Your task to perform on an android device: toggle wifi Image 0: 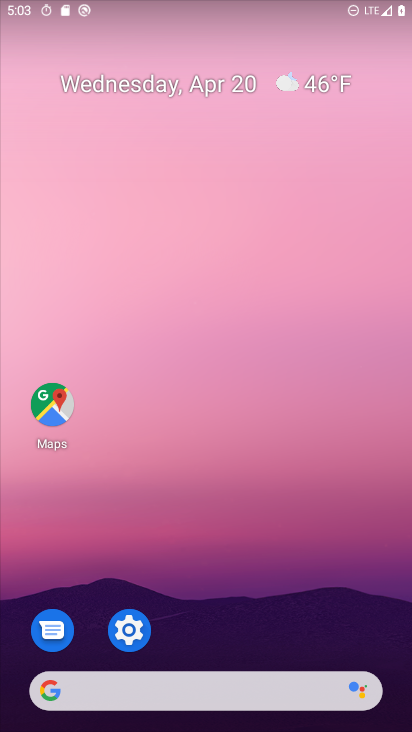
Step 0: drag from (270, 634) to (267, 89)
Your task to perform on an android device: toggle wifi Image 1: 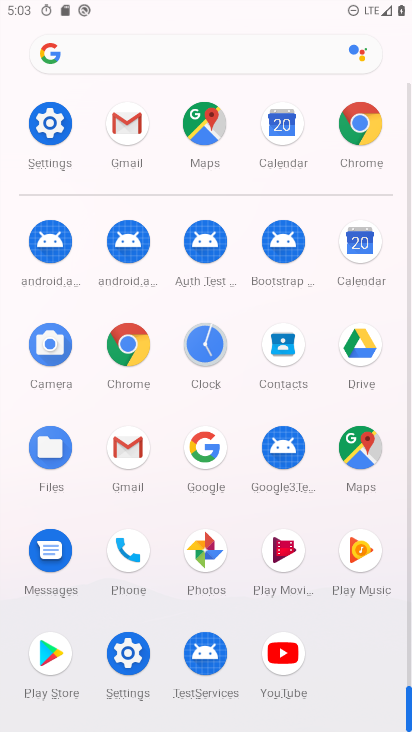
Step 1: click (132, 645)
Your task to perform on an android device: toggle wifi Image 2: 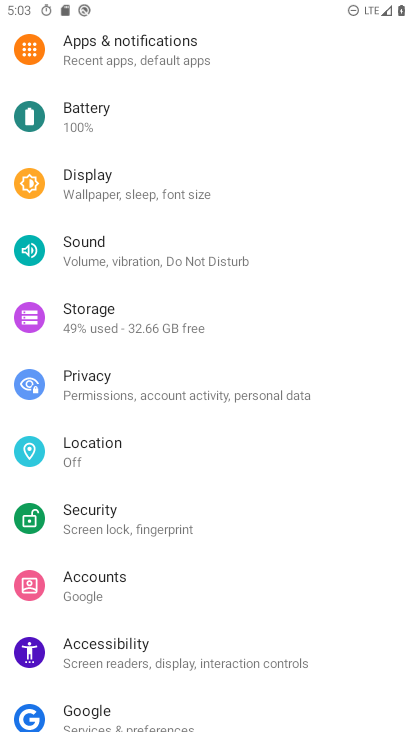
Step 2: drag from (187, 227) to (204, 666)
Your task to perform on an android device: toggle wifi Image 3: 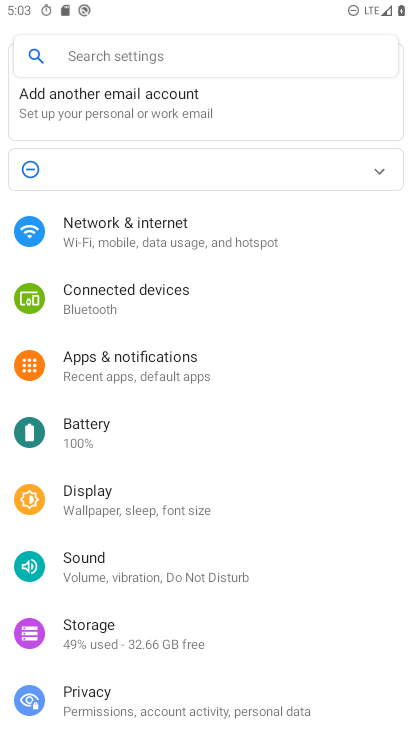
Step 3: click (196, 235)
Your task to perform on an android device: toggle wifi Image 4: 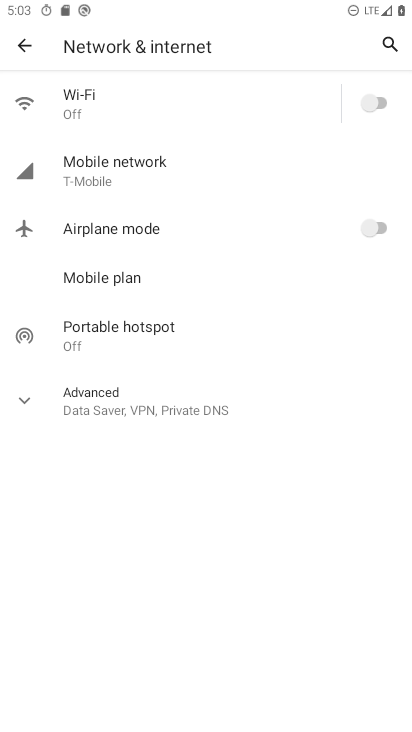
Step 4: click (377, 103)
Your task to perform on an android device: toggle wifi Image 5: 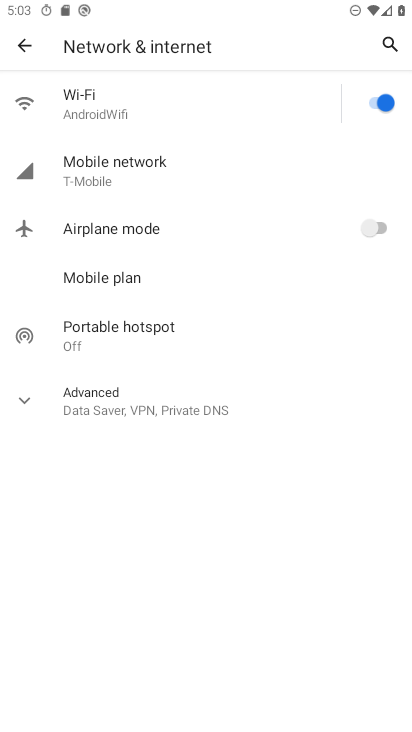
Step 5: task complete